Your task to perform on an android device: Open maps Image 0: 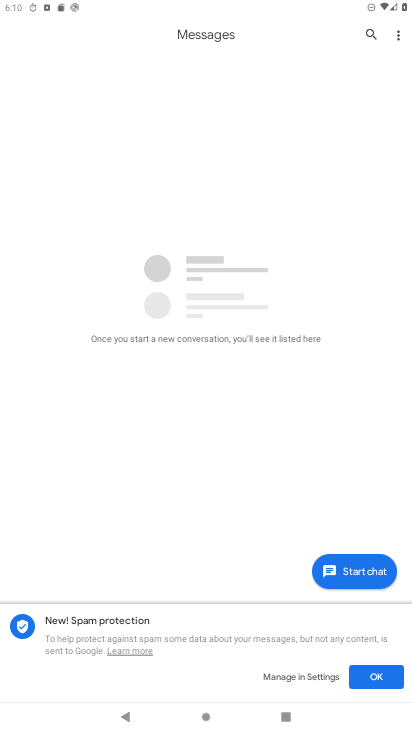
Step 0: press home button
Your task to perform on an android device: Open maps Image 1: 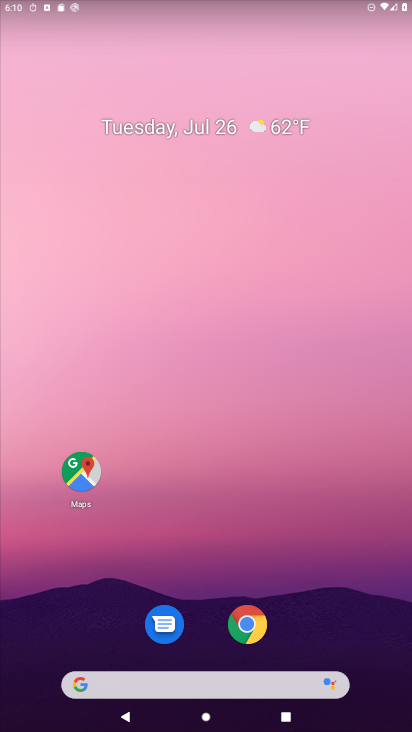
Step 1: drag from (295, 572) to (357, 21)
Your task to perform on an android device: Open maps Image 2: 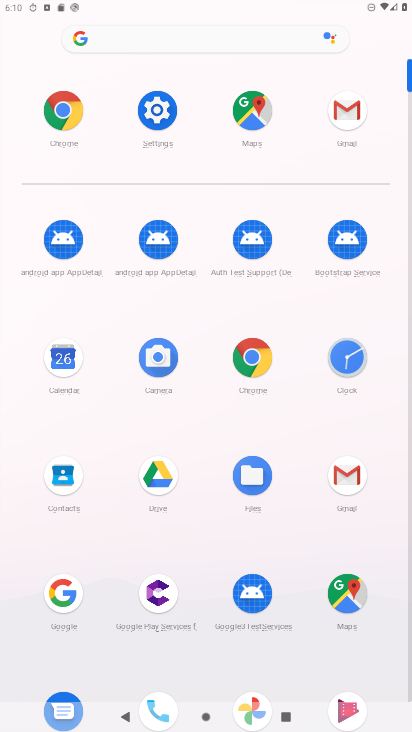
Step 2: click (355, 589)
Your task to perform on an android device: Open maps Image 3: 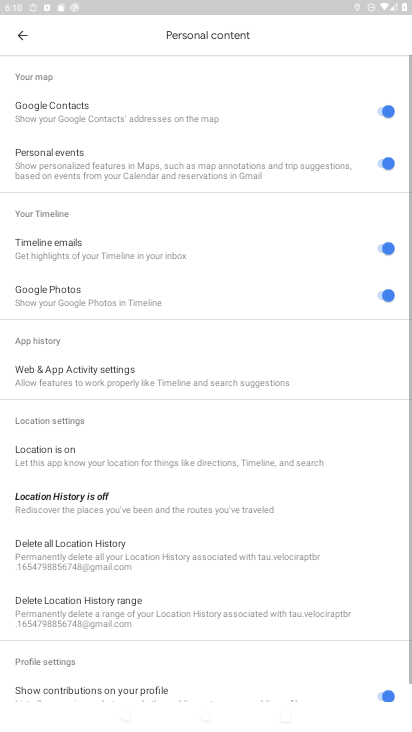
Step 3: task complete